Your task to perform on an android device: toggle sleep mode Image 0: 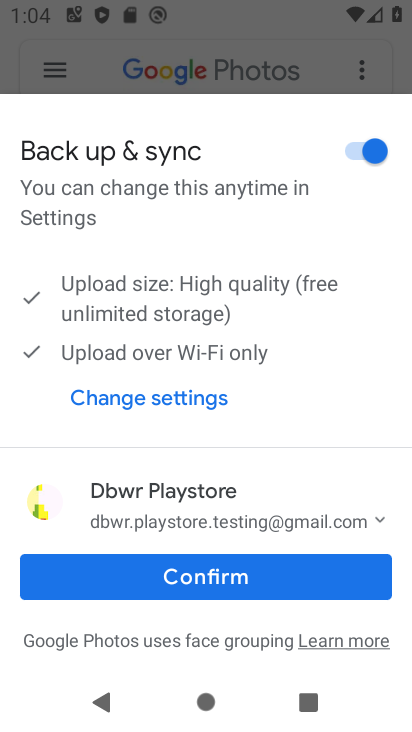
Step 0: press home button
Your task to perform on an android device: toggle sleep mode Image 1: 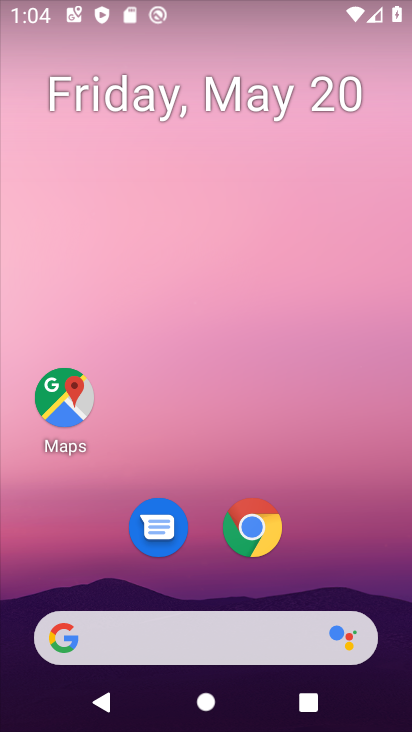
Step 1: drag from (176, 599) to (303, 86)
Your task to perform on an android device: toggle sleep mode Image 2: 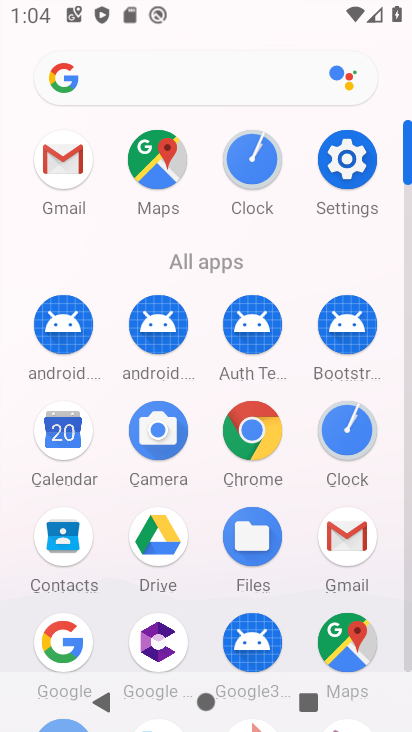
Step 2: click (349, 177)
Your task to perform on an android device: toggle sleep mode Image 3: 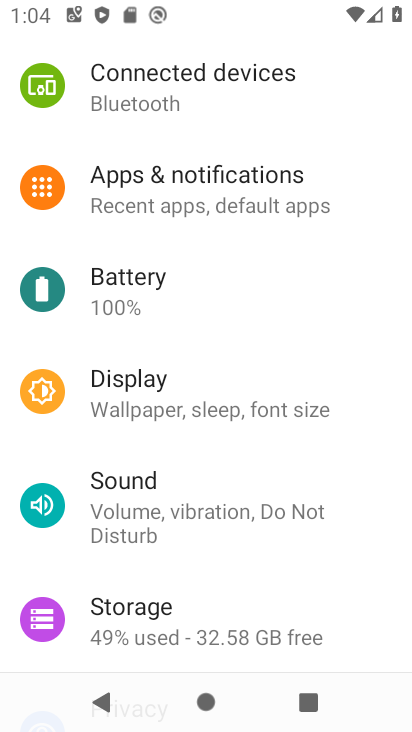
Step 3: click (189, 401)
Your task to perform on an android device: toggle sleep mode Image 4: 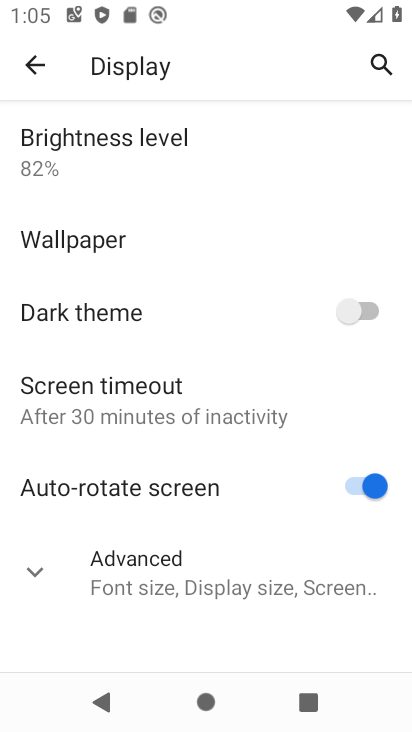
Step 4: task complete